Your task to perform on an android device: add a contact Image 0: 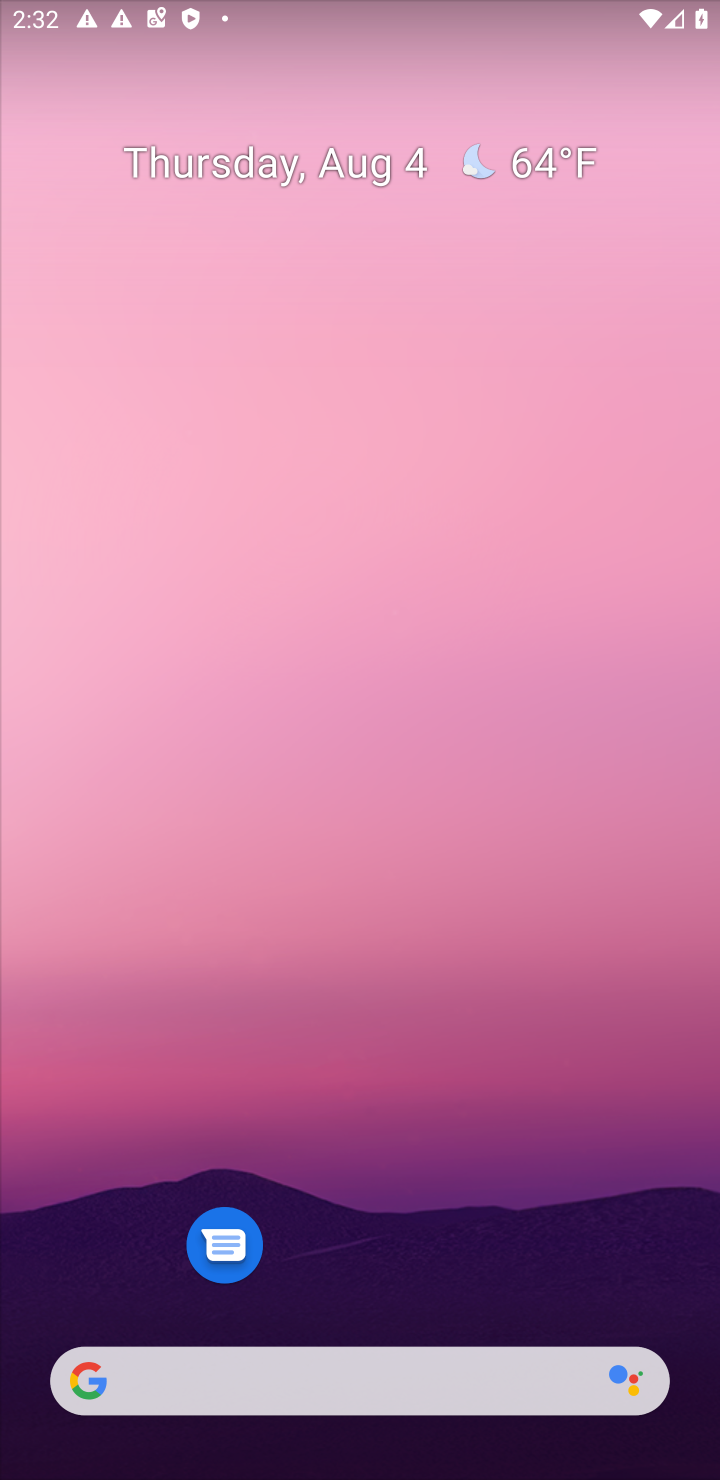
Step 0: drag from (278, 1372) to (503, 620)
Your task to perform on an android device: add a contact Image 1: 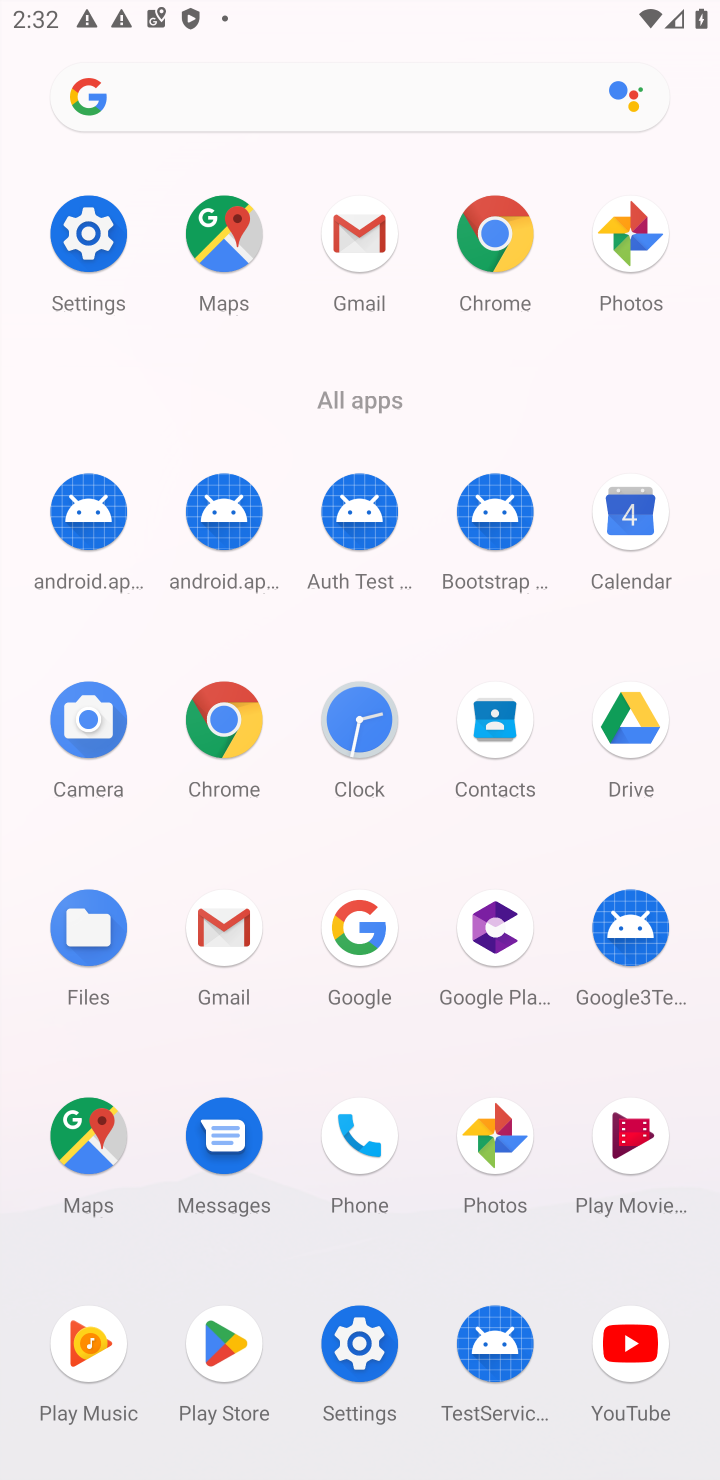
Step 1: click (350, 1147)
Your task to perform on an android device: add a contact Image 2: 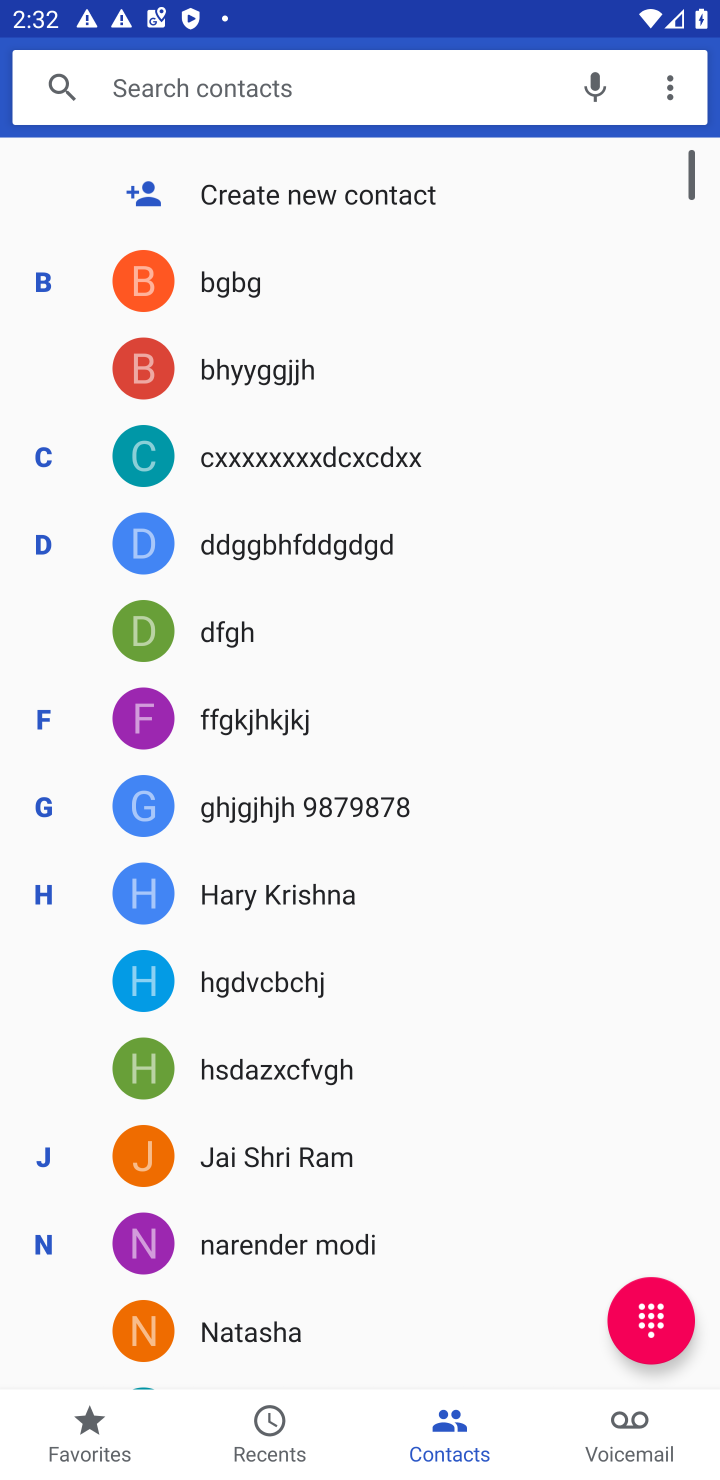
Step 2: click (258, 210)
Your task to perform on an android device: add a contact Image 3: 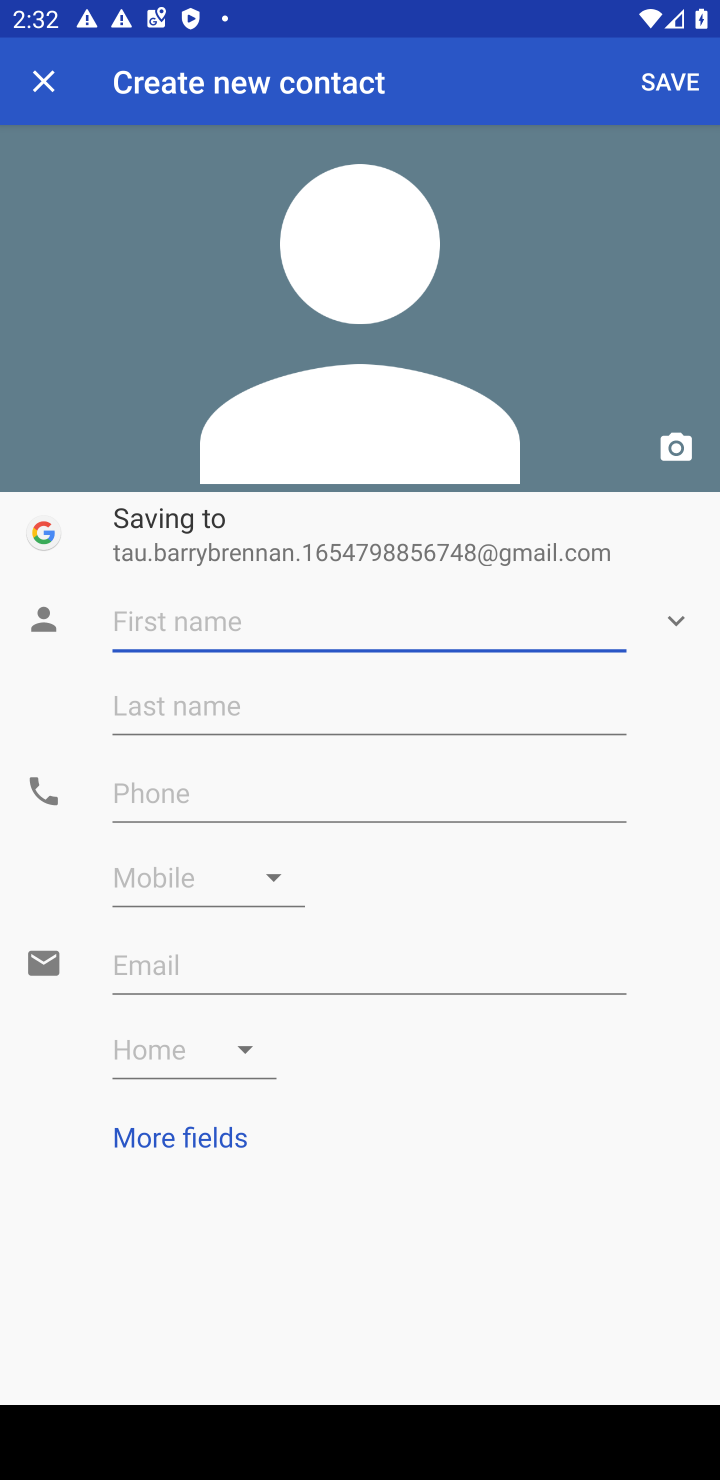
Step 3: click (230, 593)
Your task to perform on an android device: add a contact Image 4: 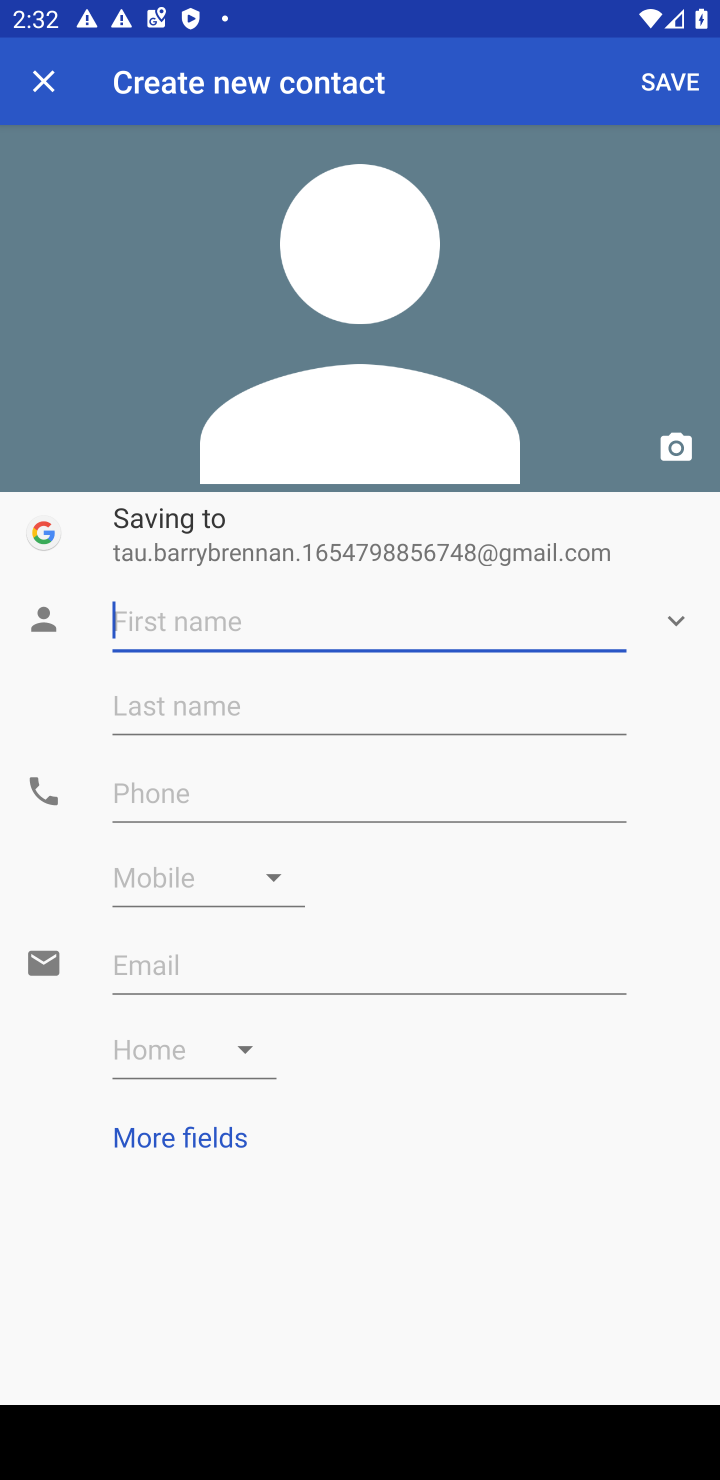
Step 4: type "bbbbbbbbbbbbbbbbb "
Your task to perform on an android device: add a contact Image 5: 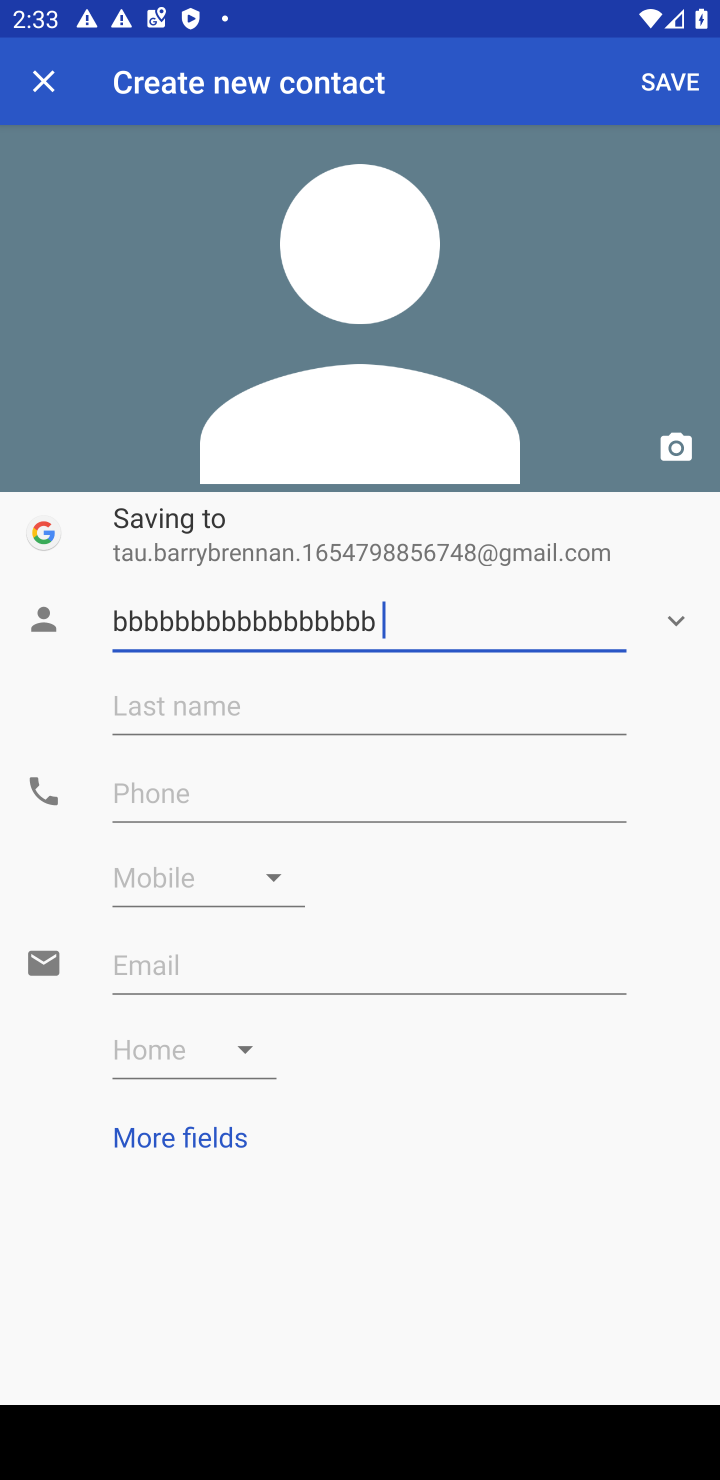
Step 5: click (240, 771)
Your task to perform on an android device: add a contact Image 6: 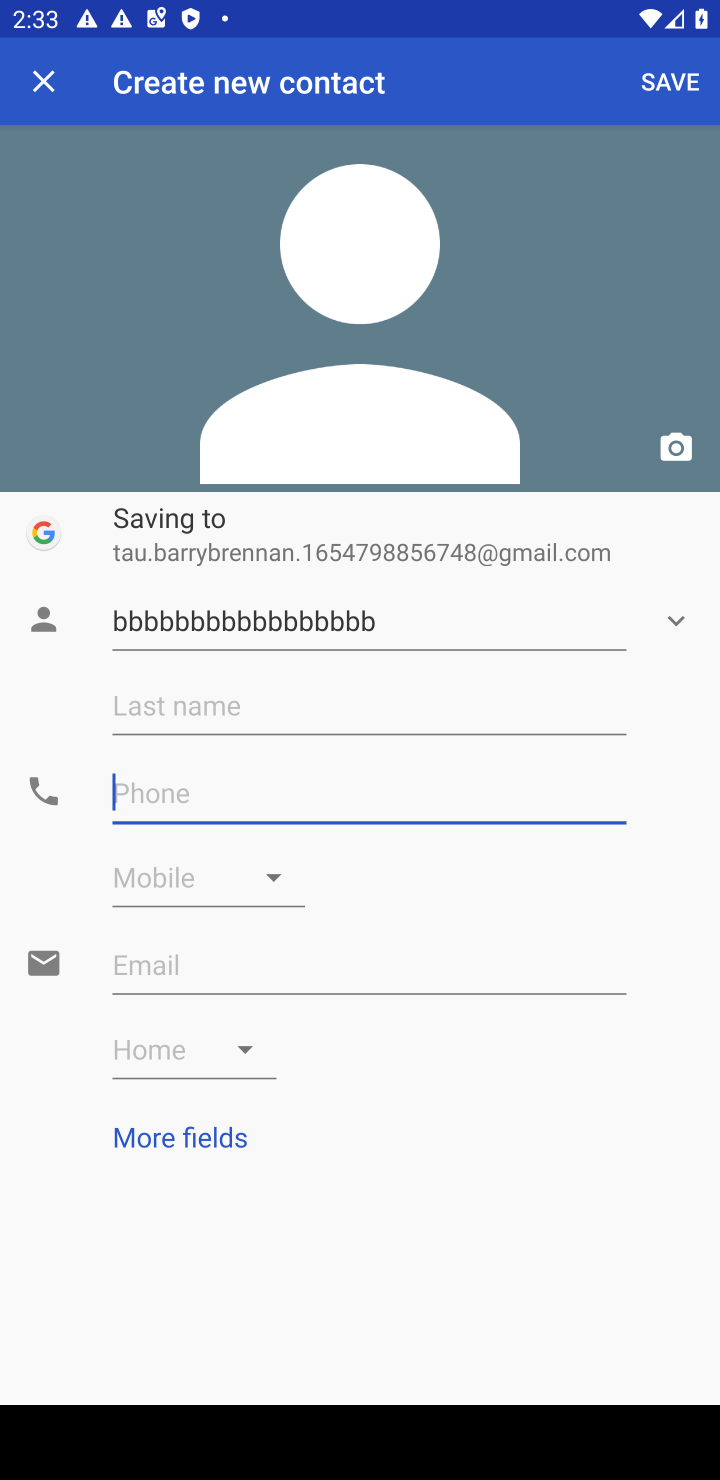
Step 6: type "8888888888888 "
Your task to perform on an android device: add a contact Image 7: 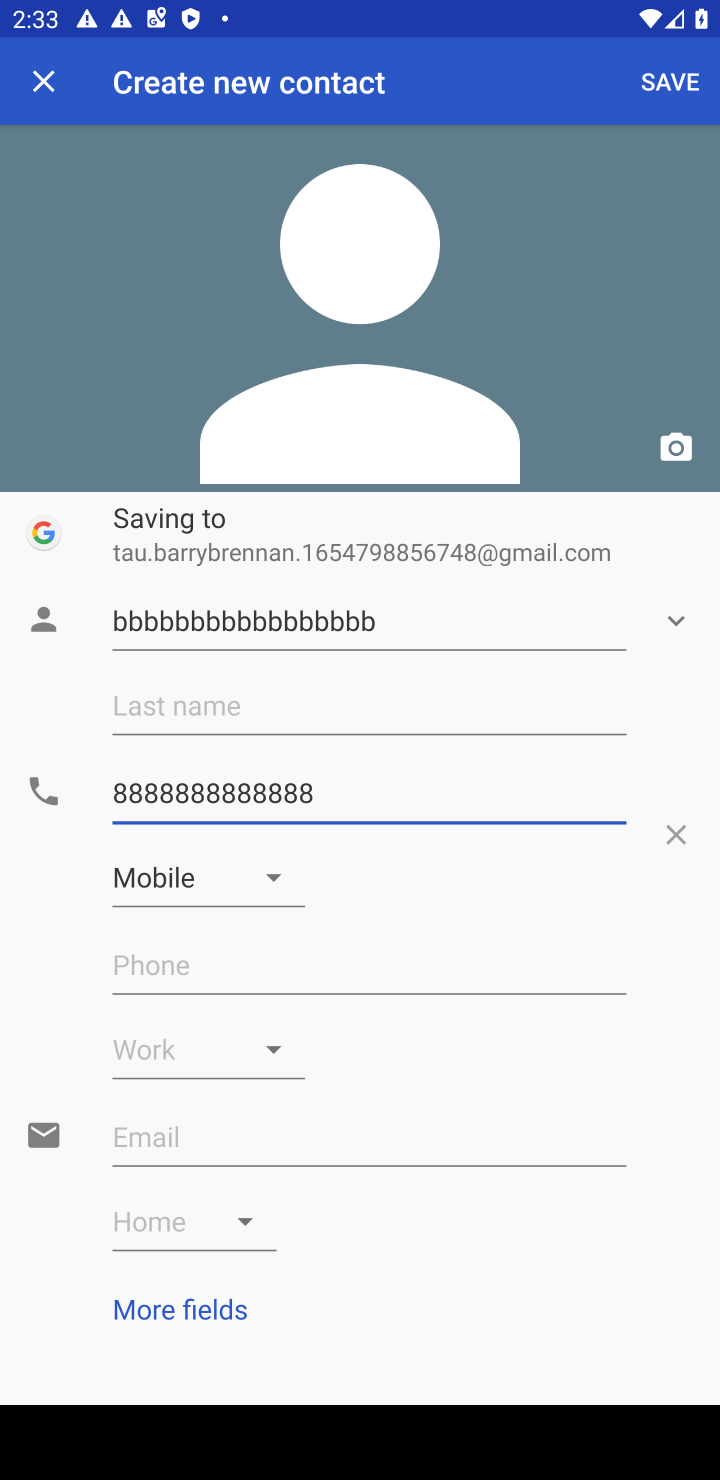
Step 7: task complete